Your task to perform on an android device: Empty the shopping cart on walmart. Add "alienware area 51" to the cart on walmart Image 0: 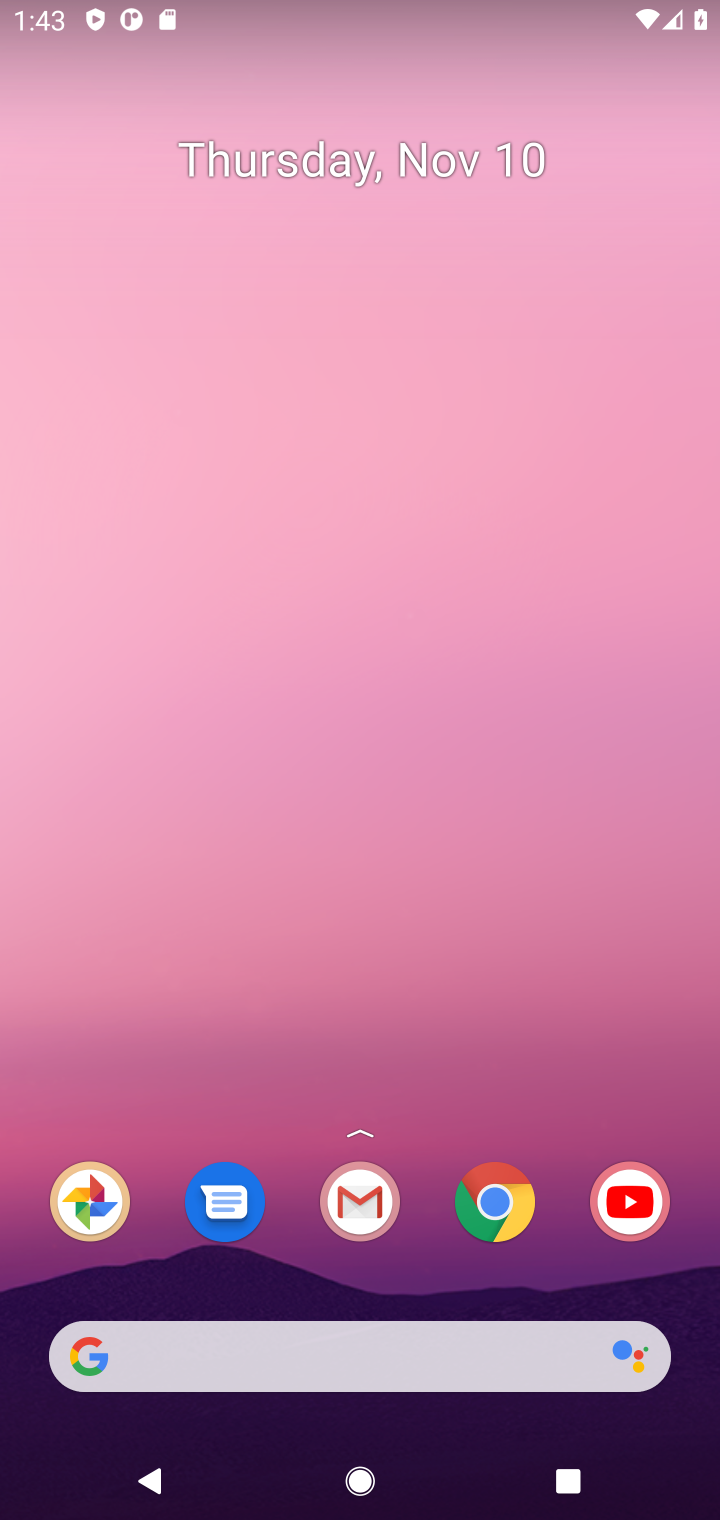
Step 0: click (510, 1208)
Your task to perform on an android device: Empty the shopping cart on walmart. Add "alienware area 51" to the cart on walmart Image 1: 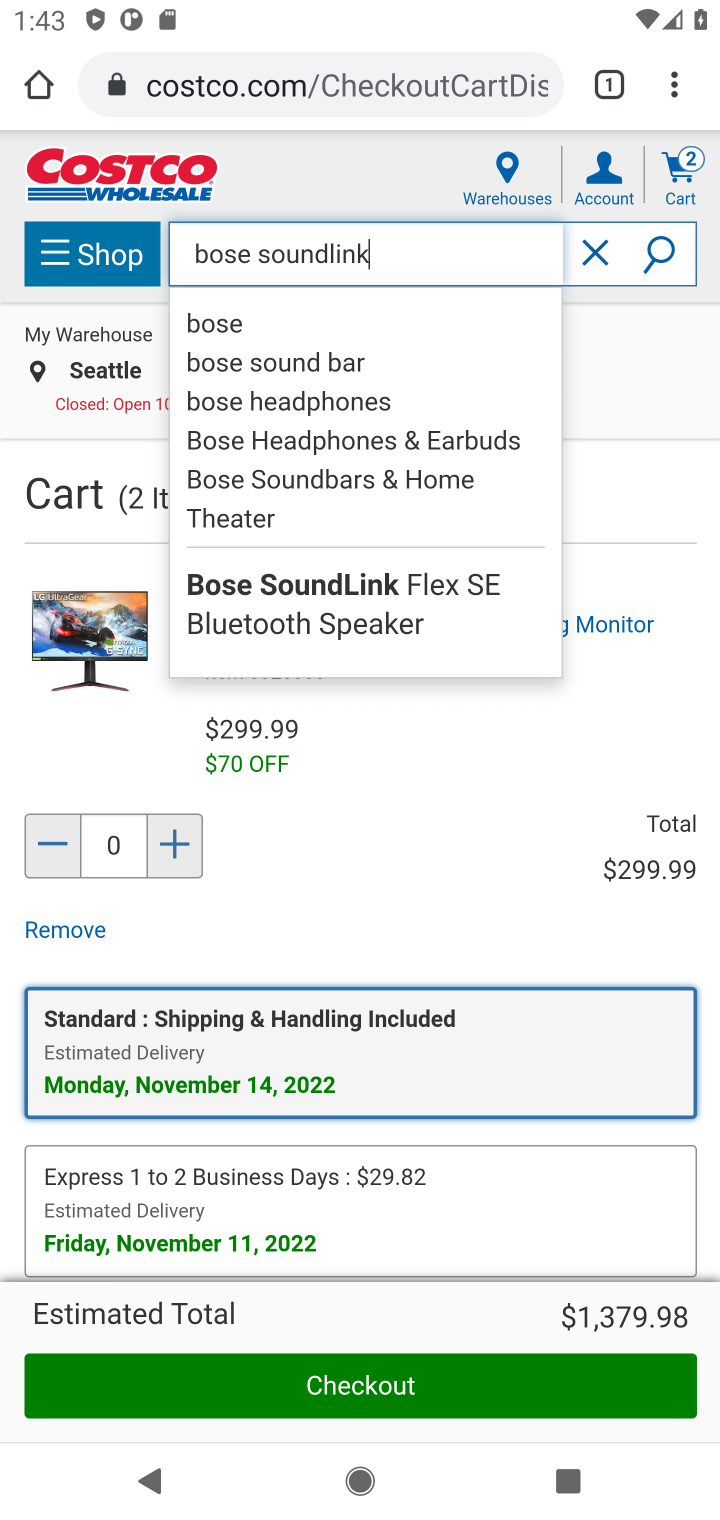
Step 1: click (31, 84)
Your task to perform on an android device: Empty the shopping cart on walmart. Add "alienware area 51" to the cart on walmart Image 2: 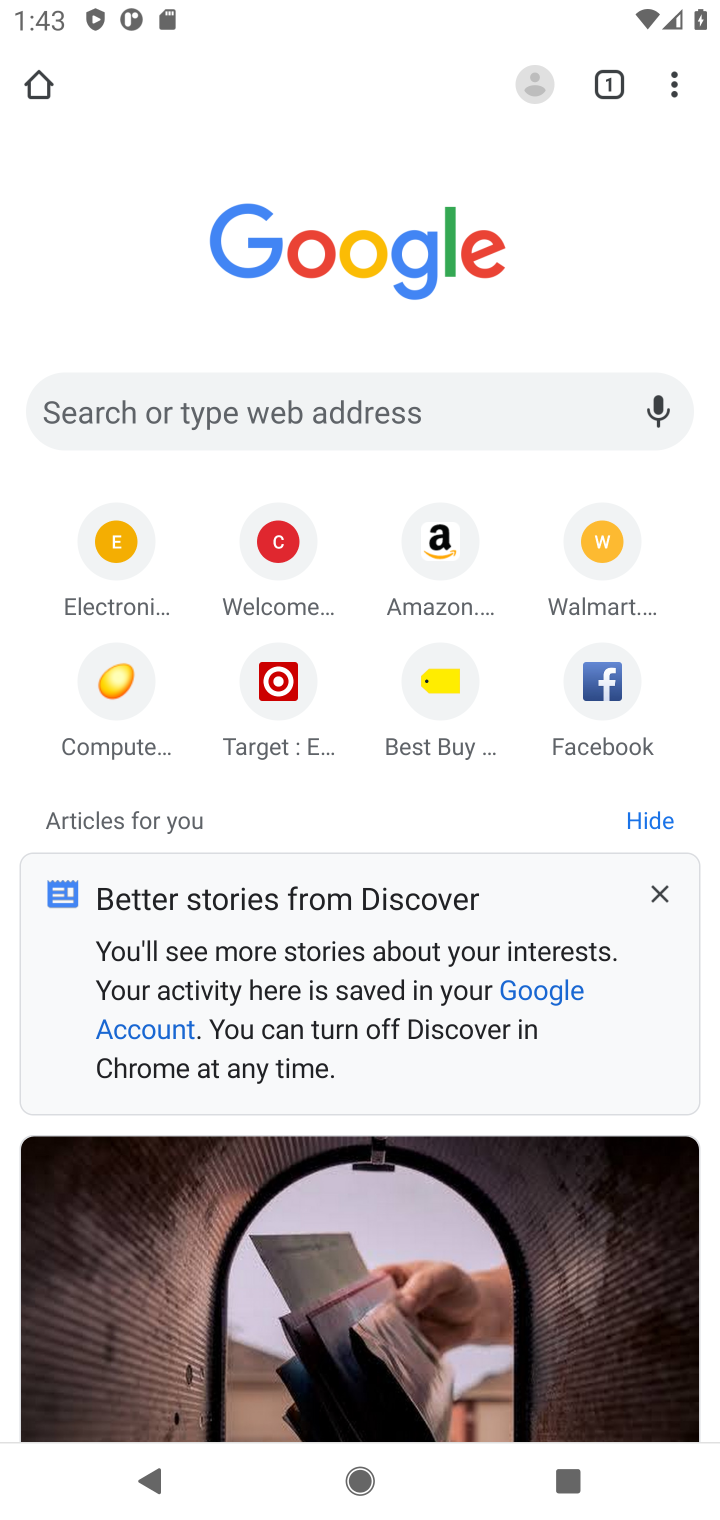
Step 2: click (250, 388)
Your task to perform on an android device: Empty the shopping cart on walmart. Add "alienware area 51" to the cart on walmart Image 3: 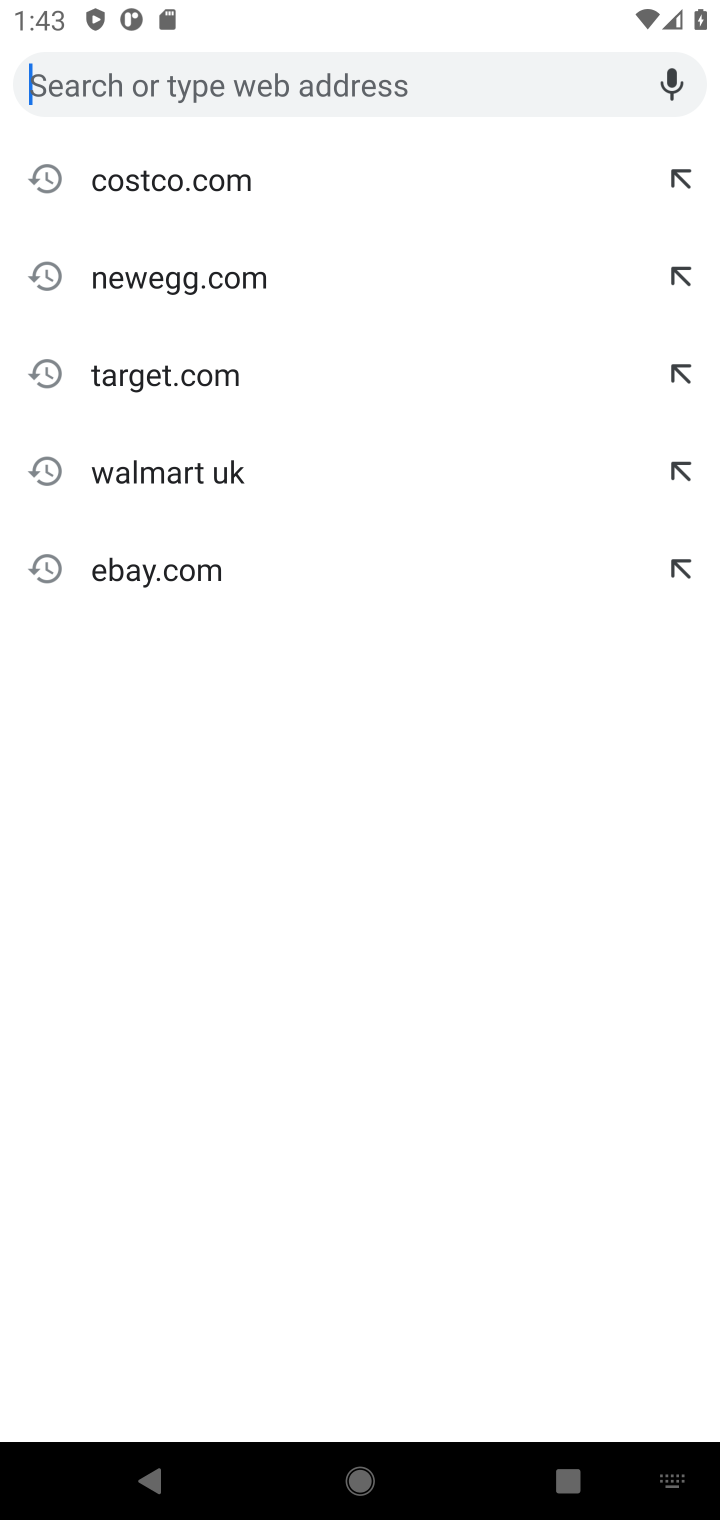
Step 3: click (202, 480)
Your task to perform on an android device: Empty the shopping cart on walmart. Add "alienware area 51" to the cart on walmart Image 4: 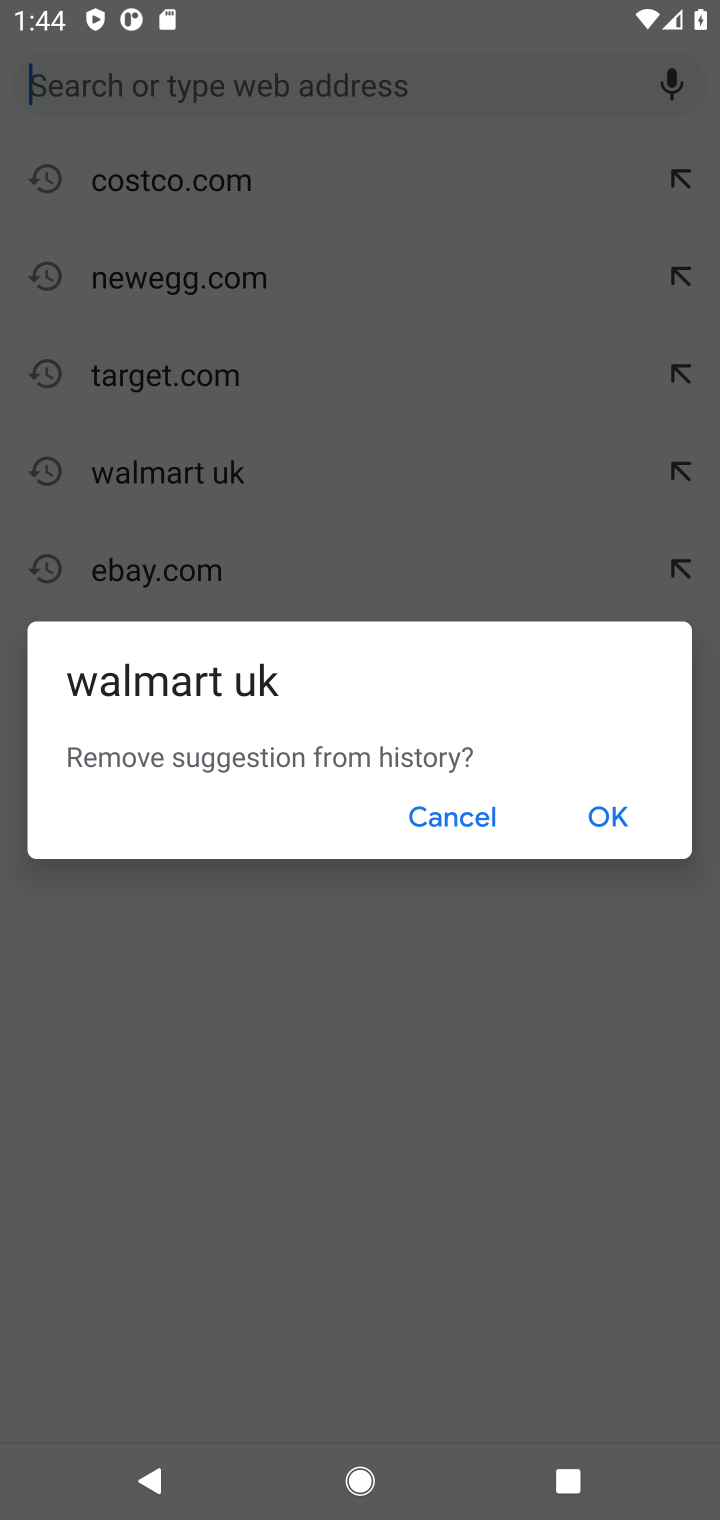
Step 4: click (605, 817)
Your task to perform on an android device: Empty the shopping cart on walmart. Add "alienware area 51" to the cart on walmart Image 5: 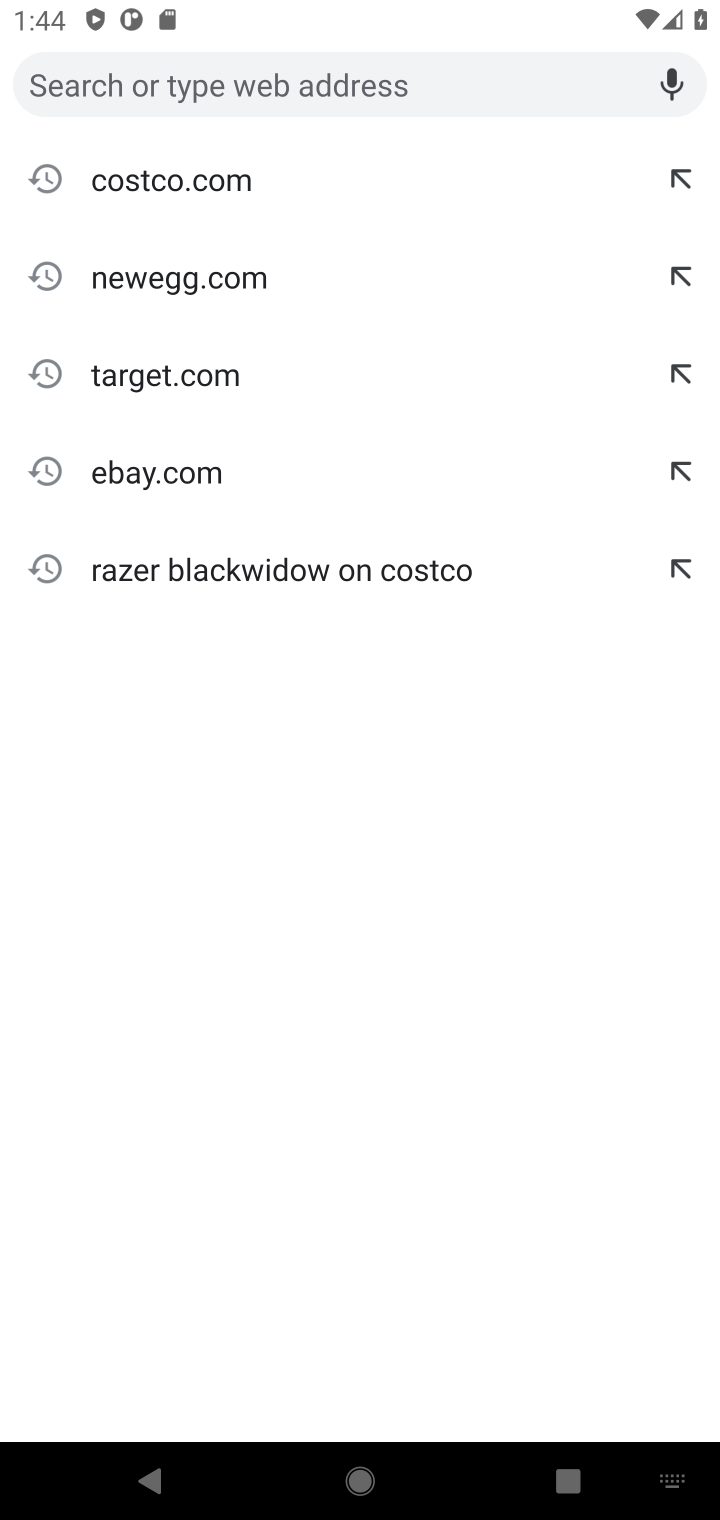
Step 5: type "walmart"
Your task to perform on an android device: Empty the shopping cart on walmart. Add "alienware area 51" to the cart on walmart Image 6: 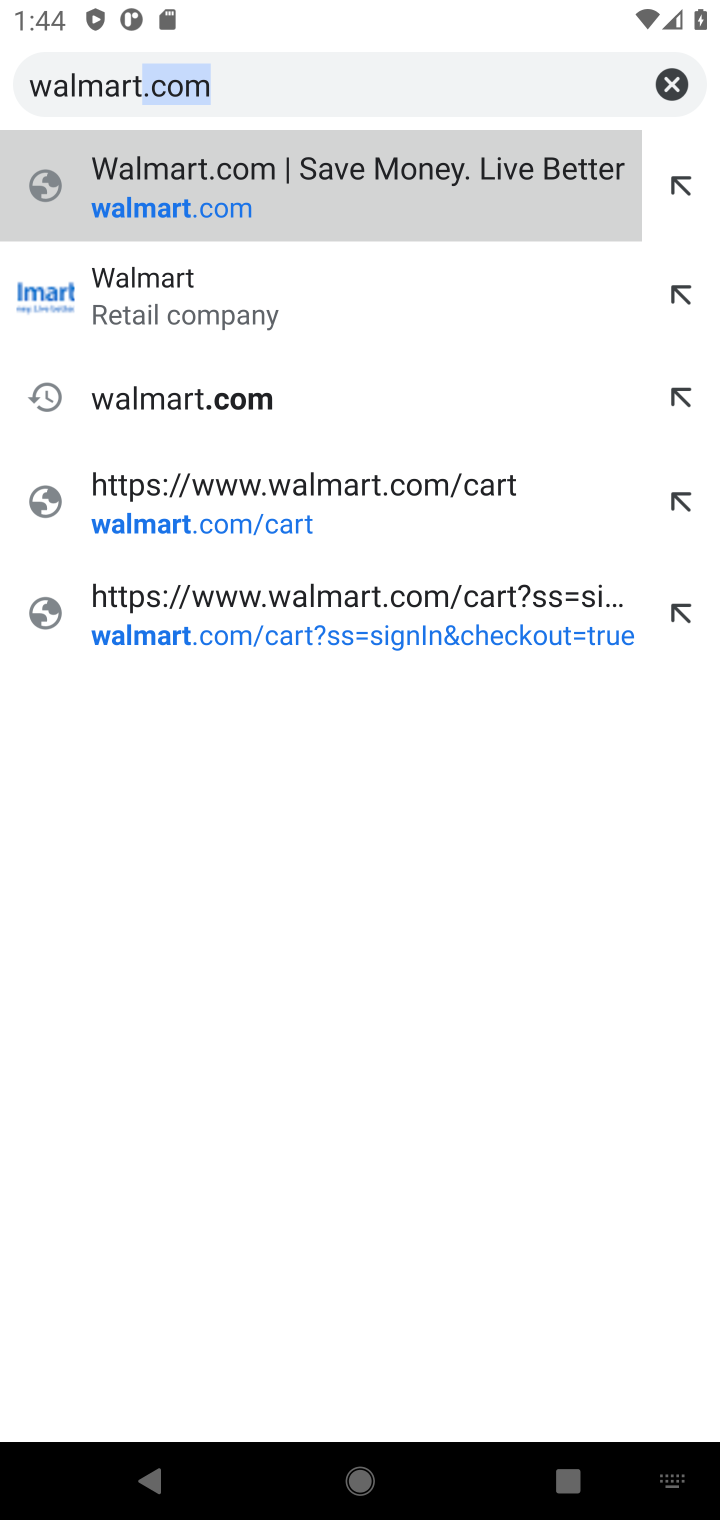
Step 6: click (540, 89)
Your task to perform on an android device: Empty the shopping cart on walmart. Add "alienware area 51" to the cart on walmart Image 7: 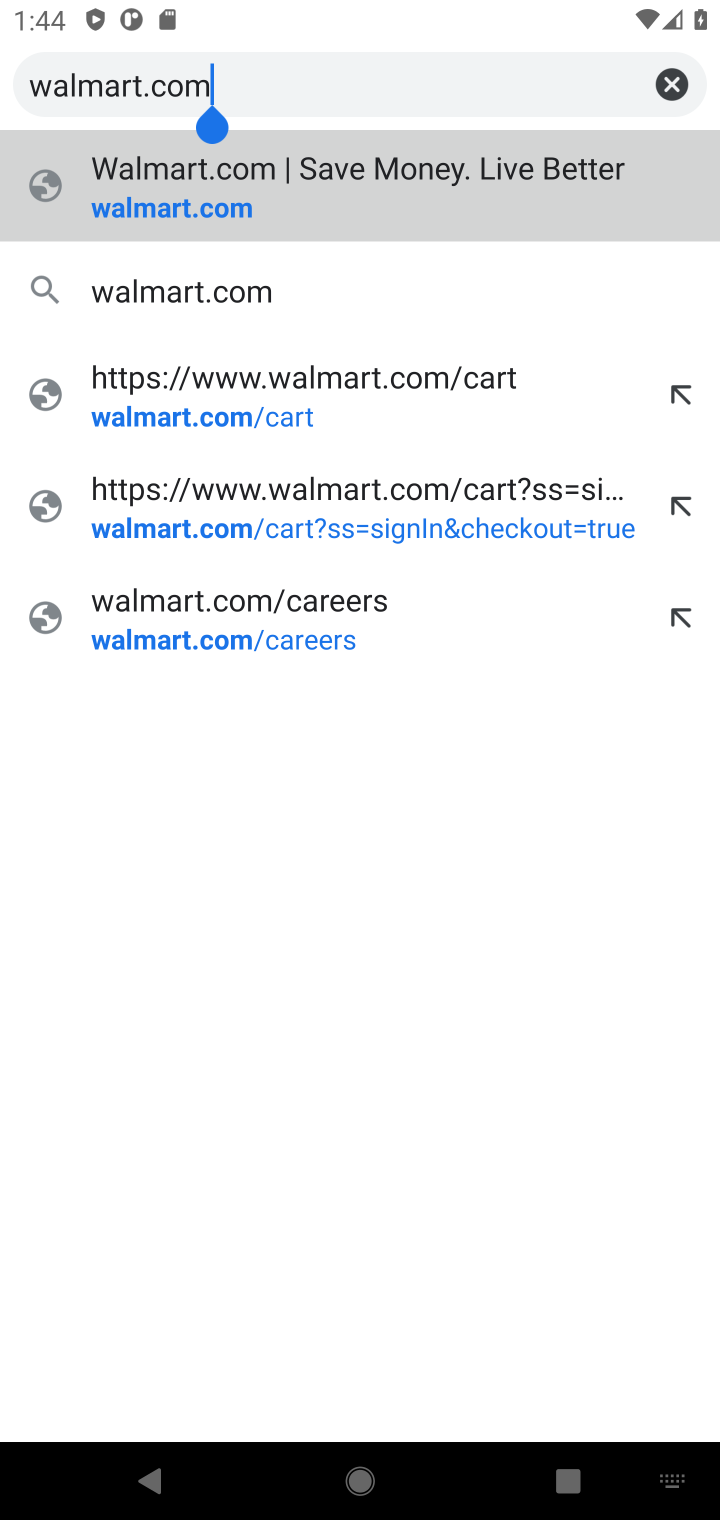
Step 7: click (247, 292)
Your task to perform on an android device: Empty the shopping cart on walmart. Add "alienware area 51" to the cart on walmart Image 8: 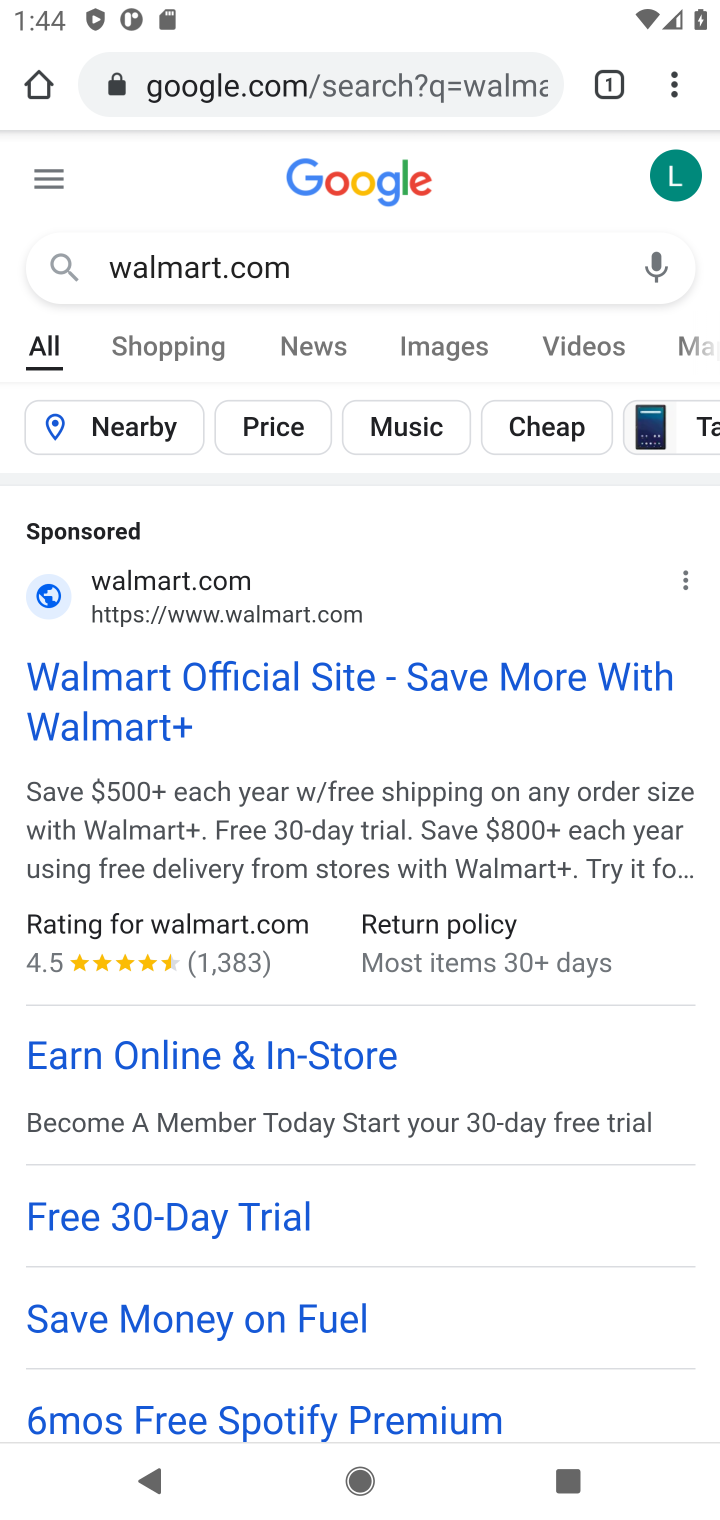
Step 8: click (287, 622)
Your task to perform on an android device: Empty the shopping cart on walmart. Add "alienware area 51" to the cart on walmart Image 9: 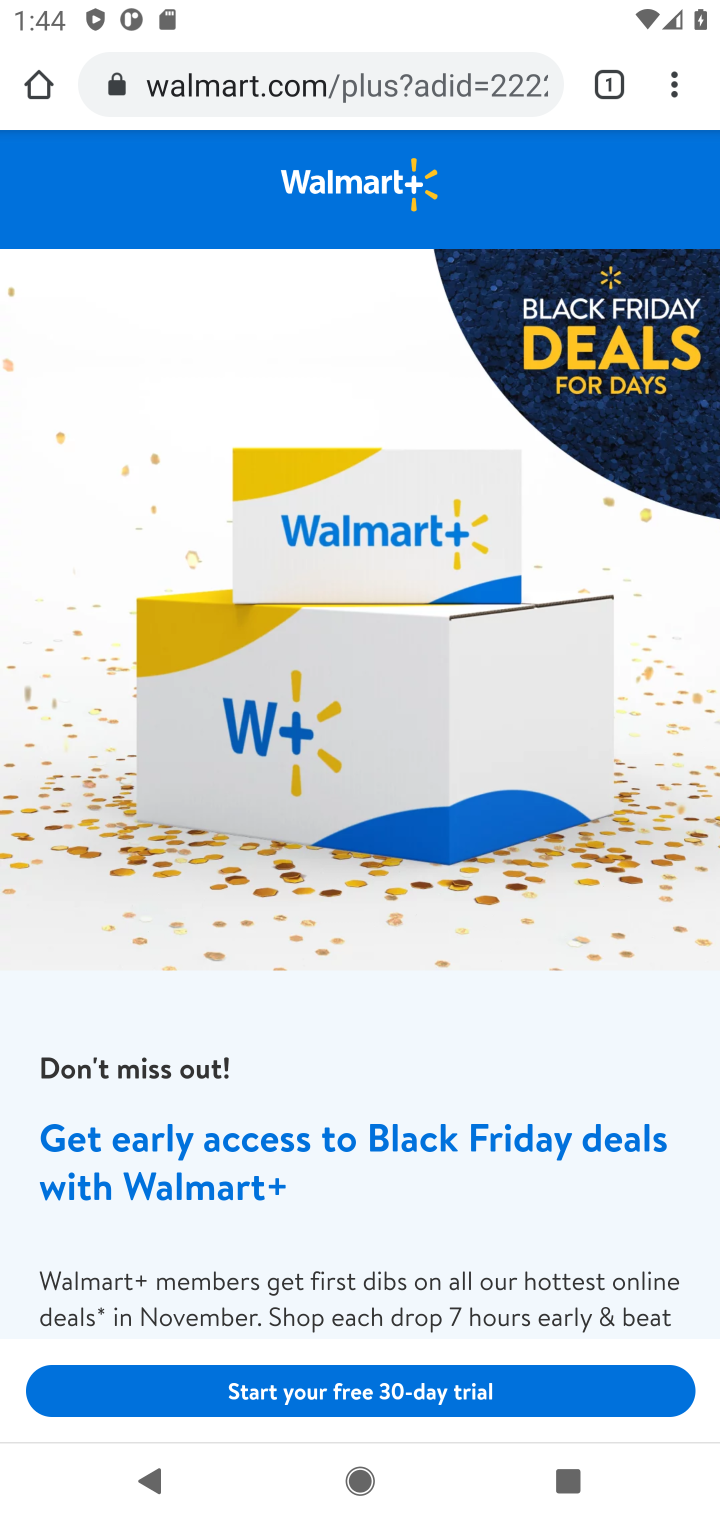
Step 9: press back button
Your task to perform on an android device: Empty the shopping cart on walmart. Add "alienware area 51" to the cart on walmart Image 10: 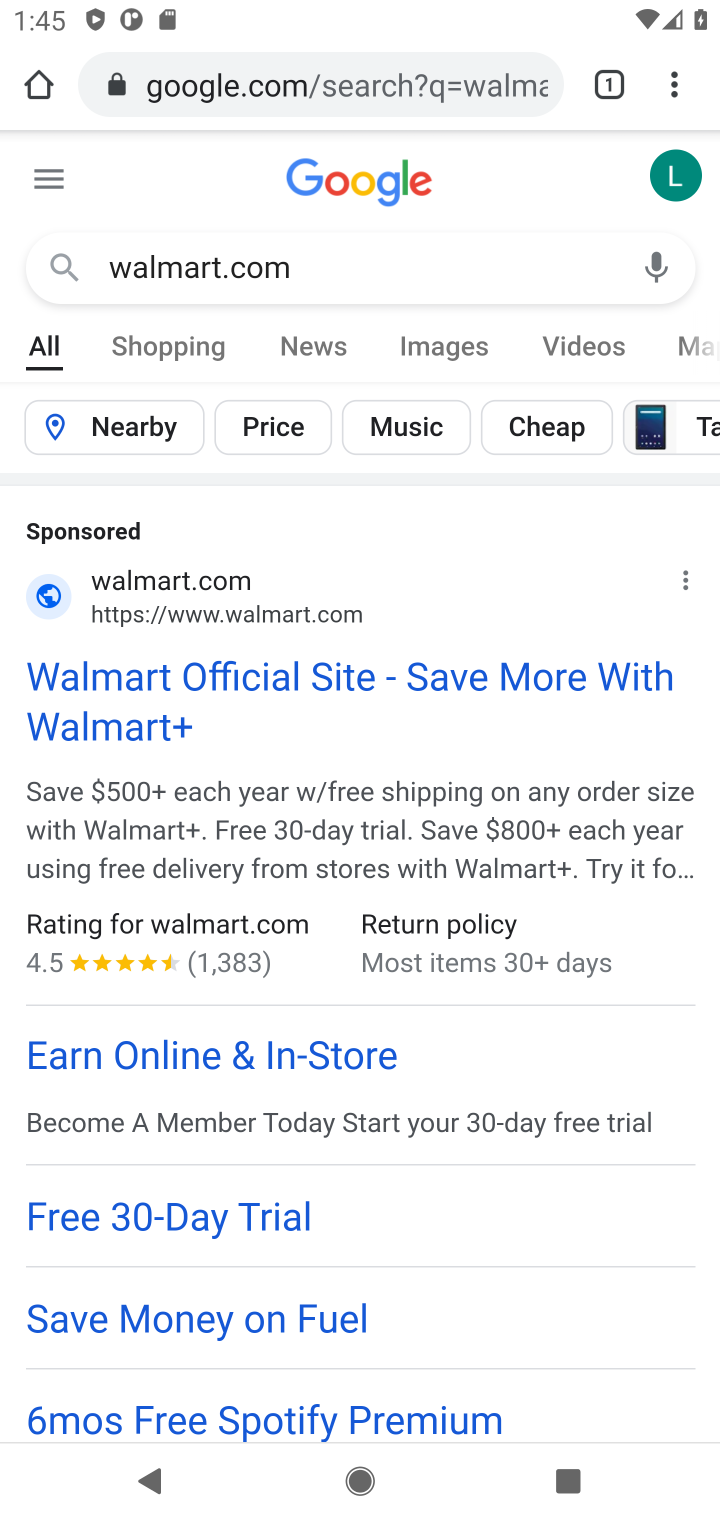
Step 10: drag from (306, 1198) to (349, 525)
Your task to perform on an android device: Empty the shopping cart on walmart. Add "alienware area 51" to the cart on walmart Image 11: 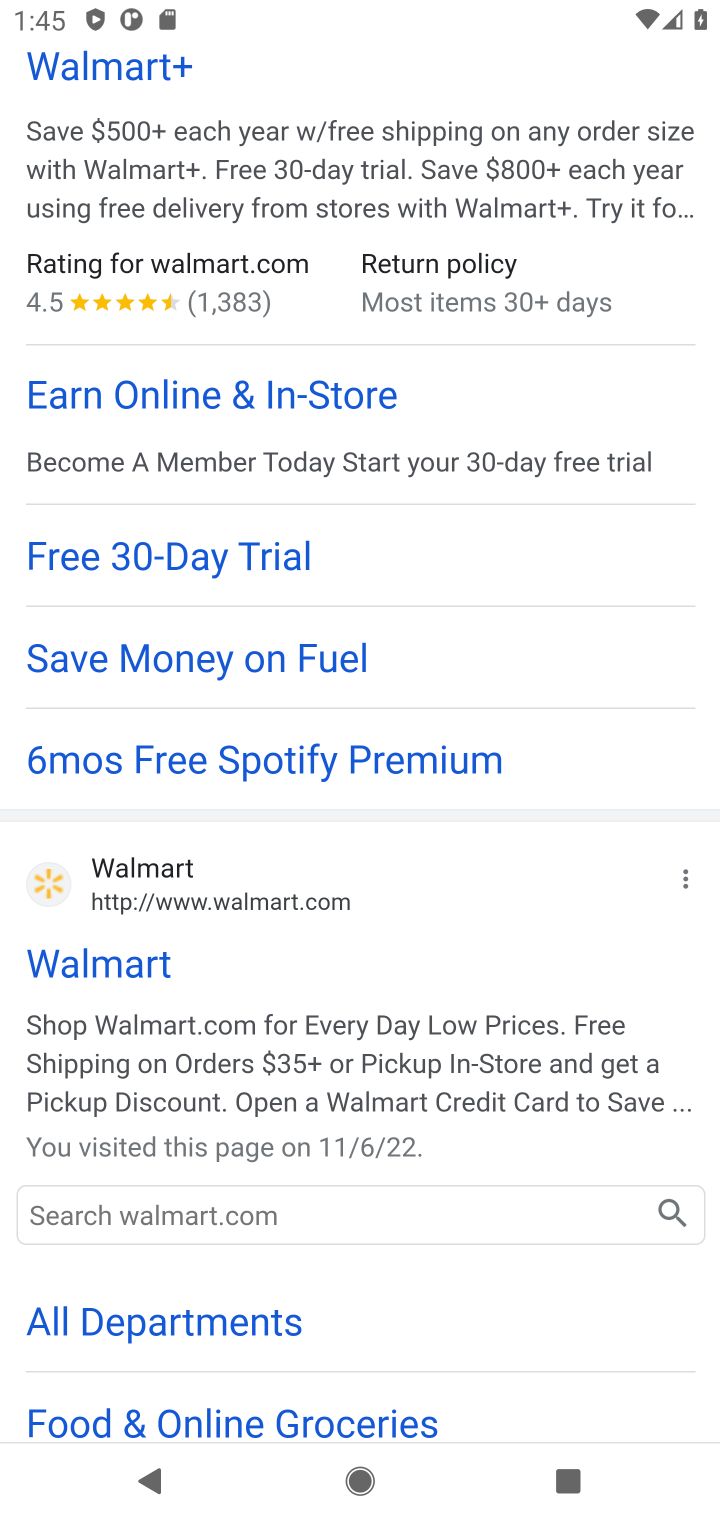
Step 11: click (249, 900)
Your task to perform on an android device: Empty the shopping cart on walmart. Add "alienware area 51" to the cart on walmart Image 12: 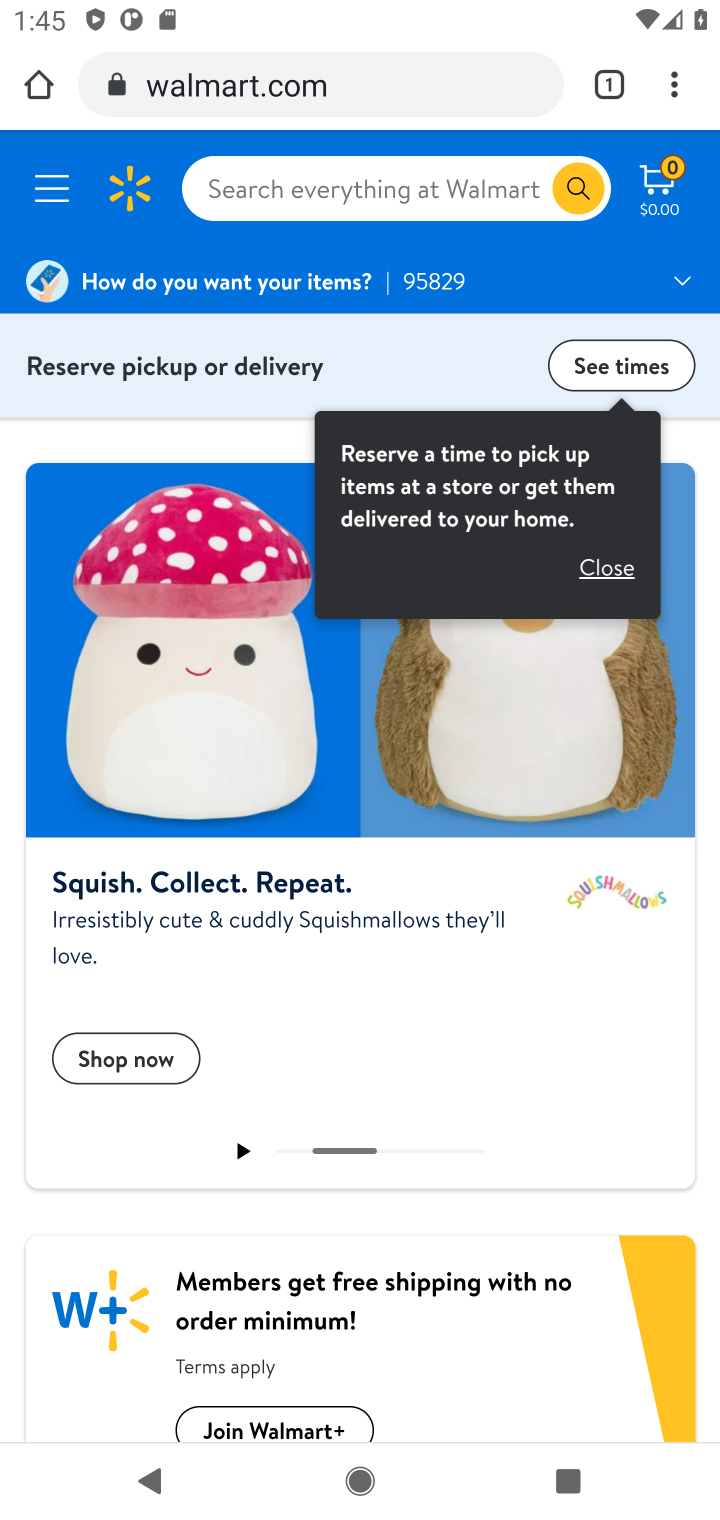
Step 12: click (422, 179)
Your task to perform on an android device: Empty the shopping cart on walmart. Add "alienware area 51" to the cart on walmart Image 13: 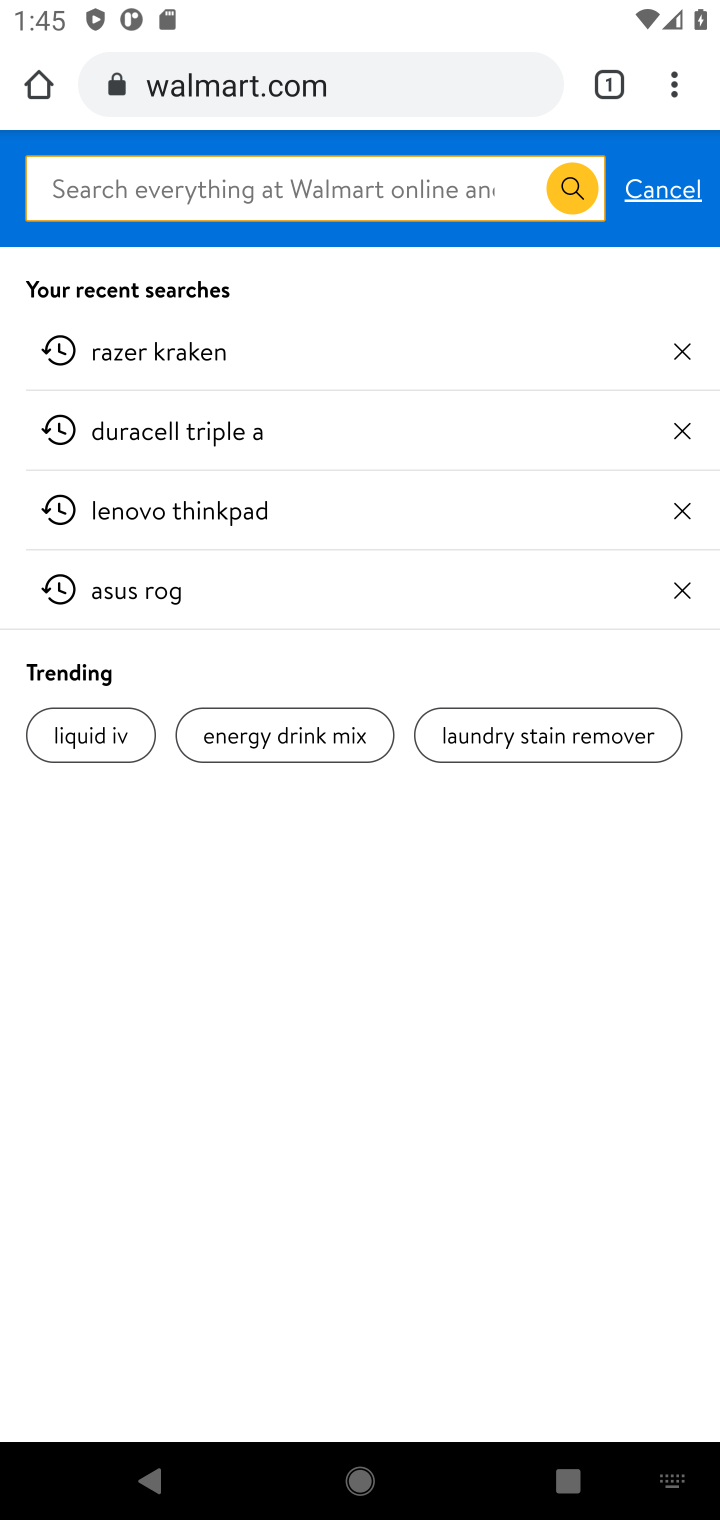
Step 13: type "alienware area 51"
Your task to perform on an android device: Empty the shopping cart on walmart. Add "alienware area 51" to the cart on walmart Image 14: 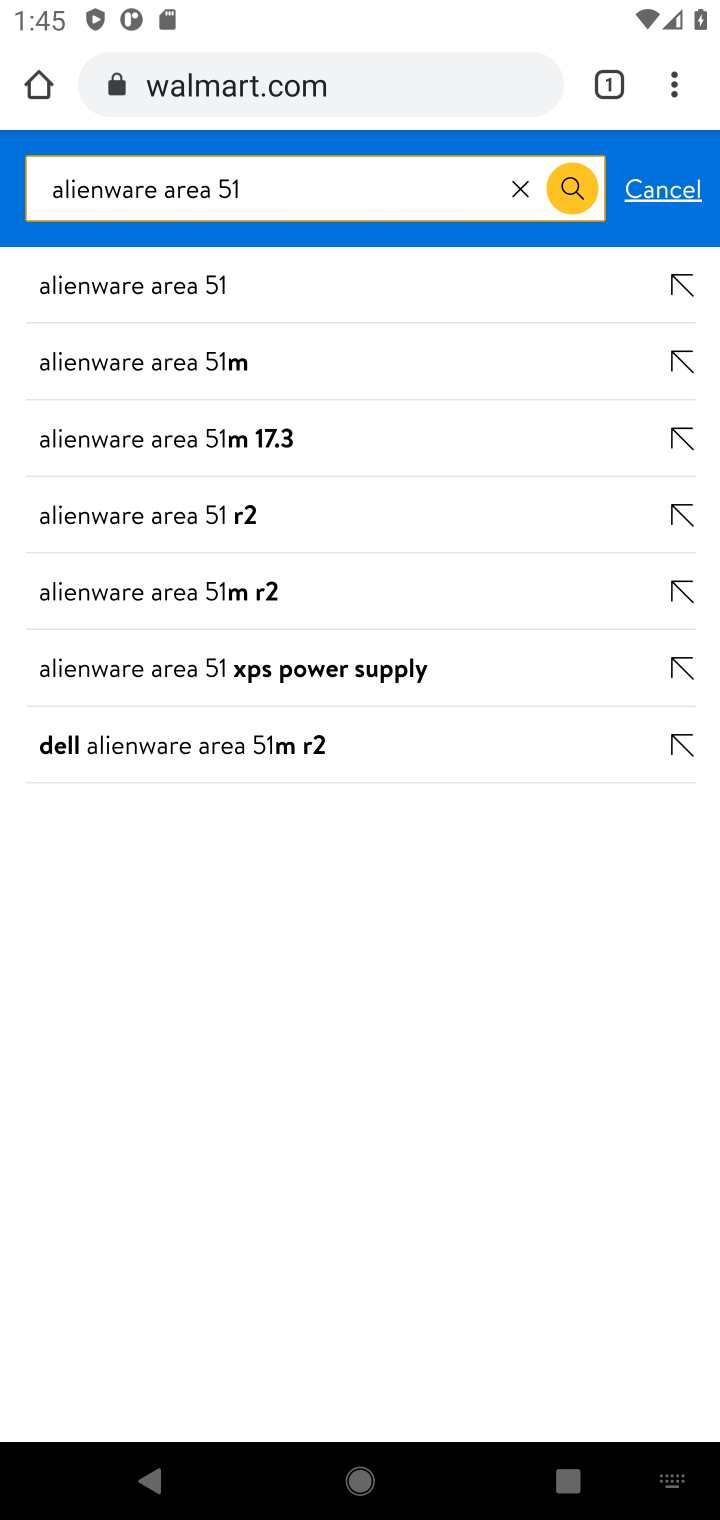
Step 14: click (184, 277)
Your task to perform on an android device: Empty the shopping cart on walmart. Add "alienware area 51" to the cart on walmart Image 15: 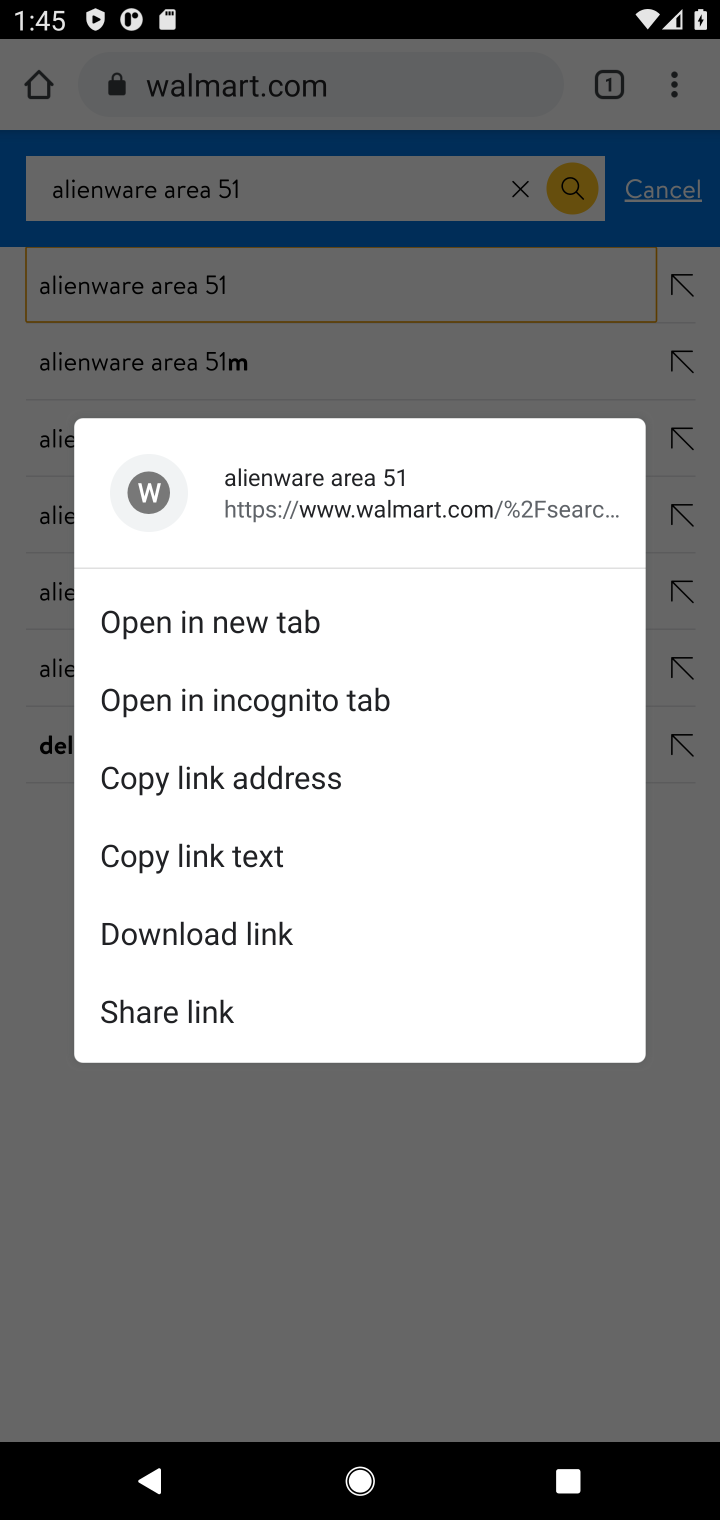
Step 15: click (548, 307)
Your task to perform on an android device: Empty the shopping cart on walmart. Add "alienware area 51" to the cart on walmart Image 16: 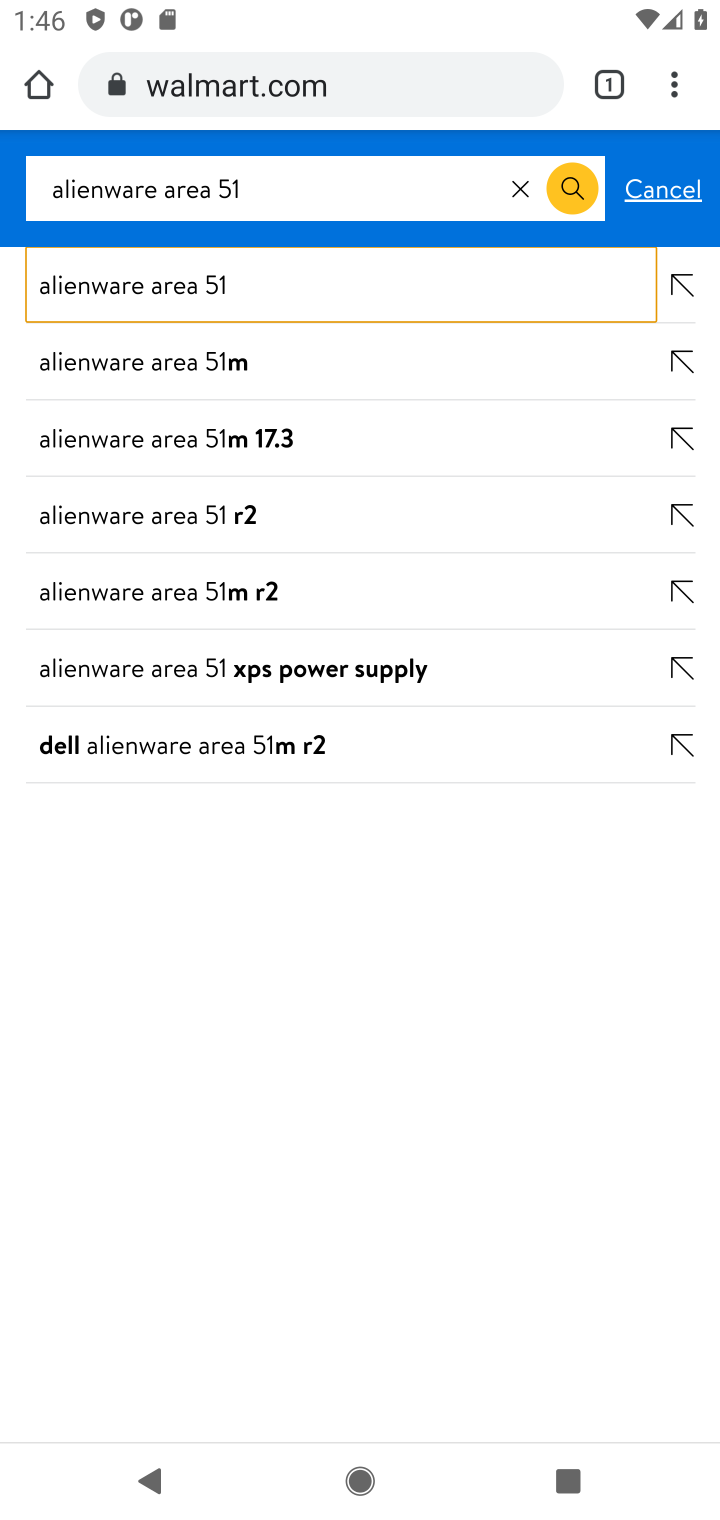
Step 16: click (327, 282)
Your task to perform on an android device: Empty the shopping cart on walmart. Add "alienware area 51" to the cart on walmart Image 17: 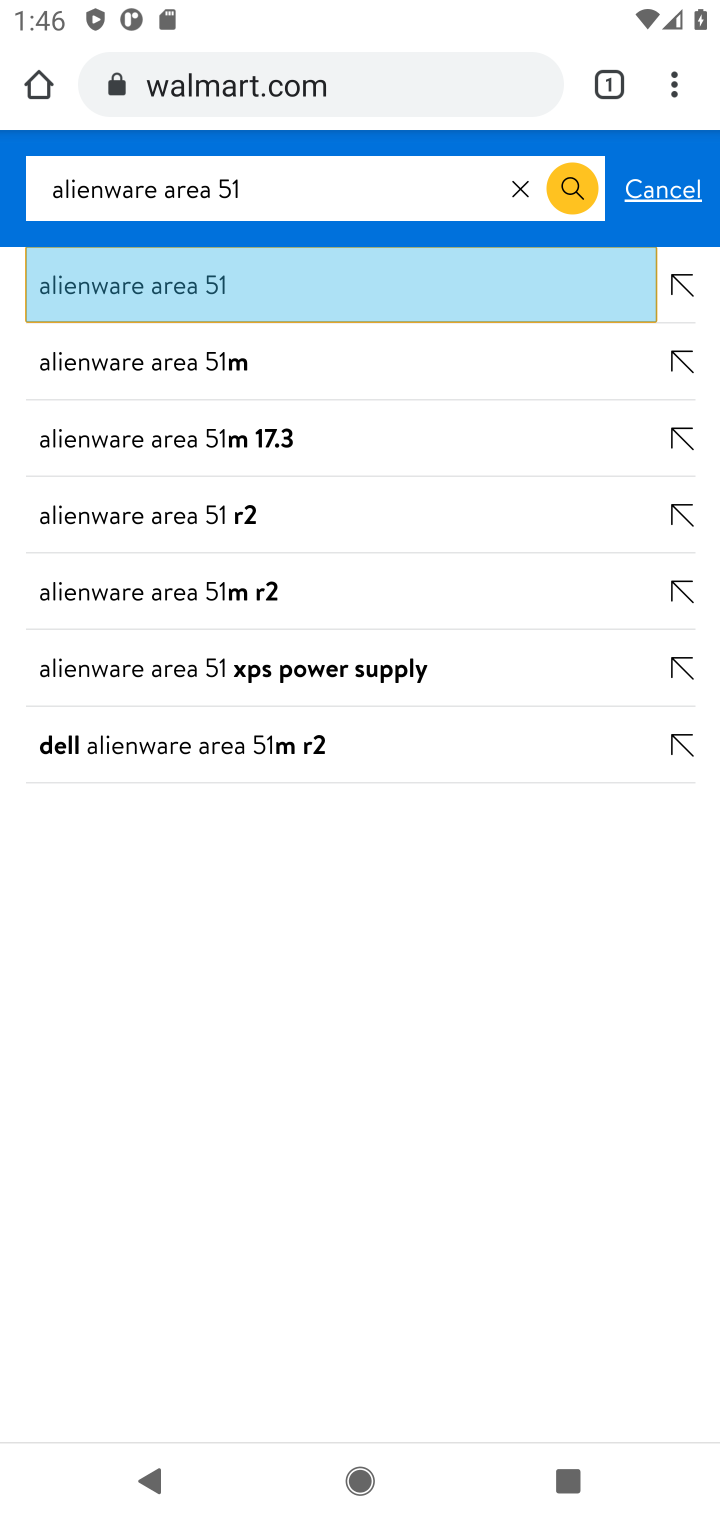
Step 17: click (374, 187)
Your task to perform on an android device: Empty the shopping cart on walmart. Add "alienware area 51" to the cart on walmart Image 18: 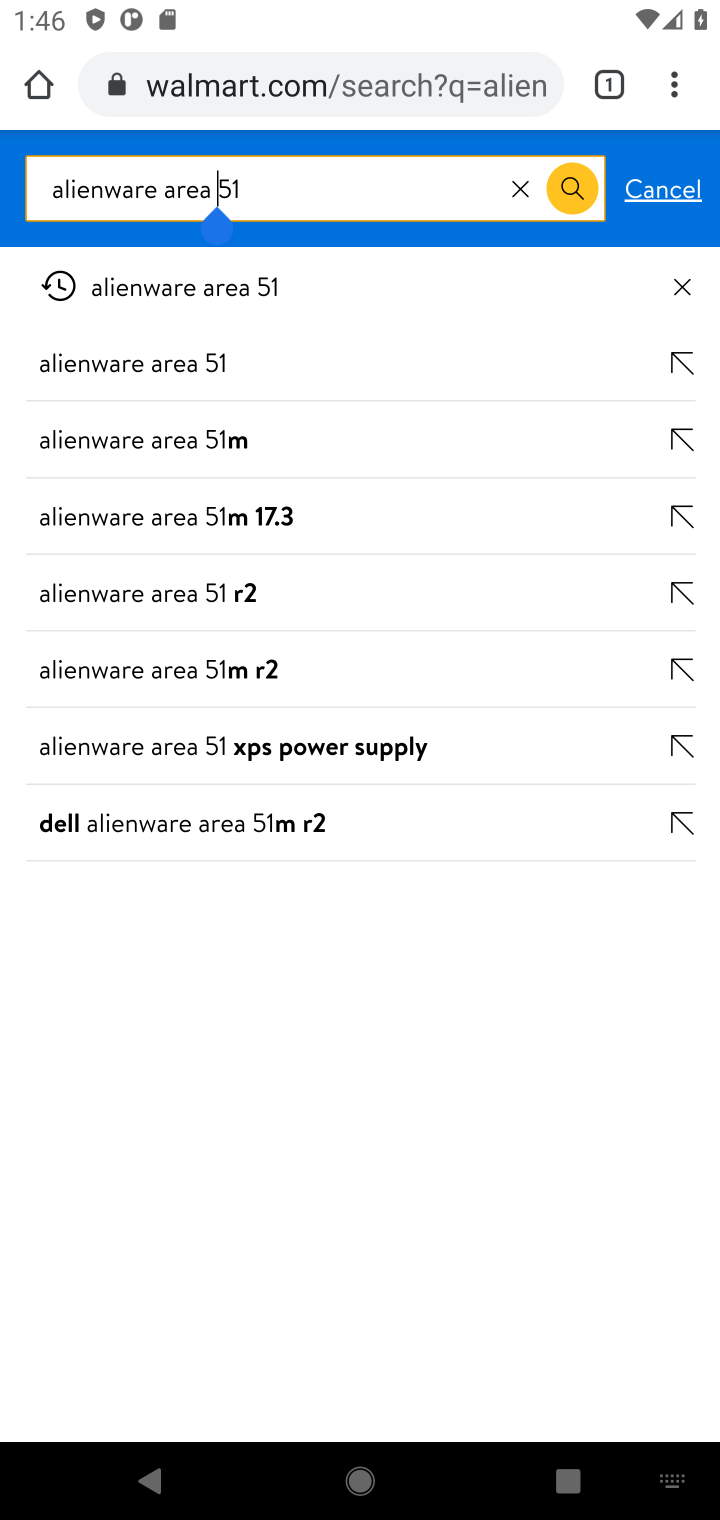
Step 18: click (198, 369)
Your task to perform on an android device: Empty the shopping cart on walmart. Add "alienware area 51" to the cart on walmart Image 19: 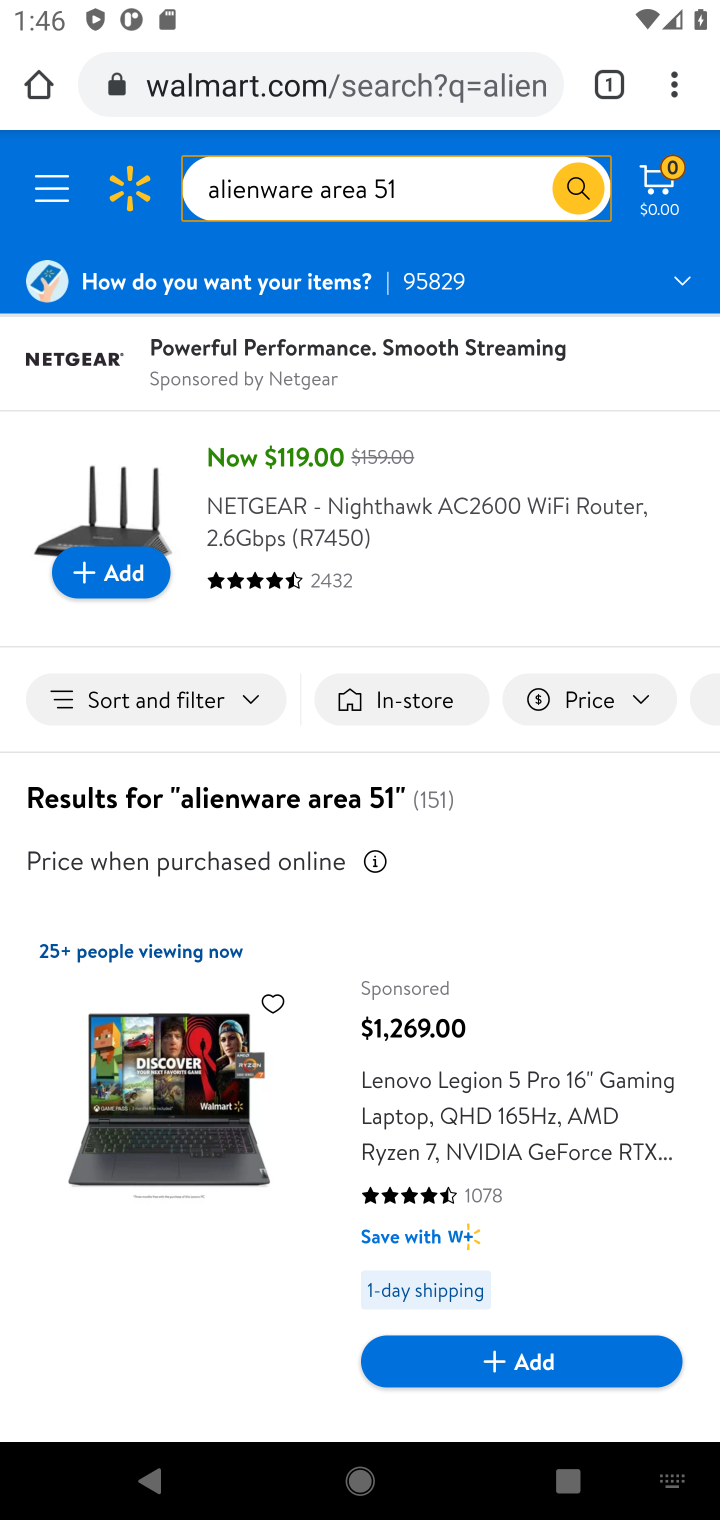
Step 19: drag from (555, 1094) to (532, 436)
Your task to perform on an android device: Empty the shopping cart on walmart. Add "alienware area 51" to the cart on walmart Image 20: 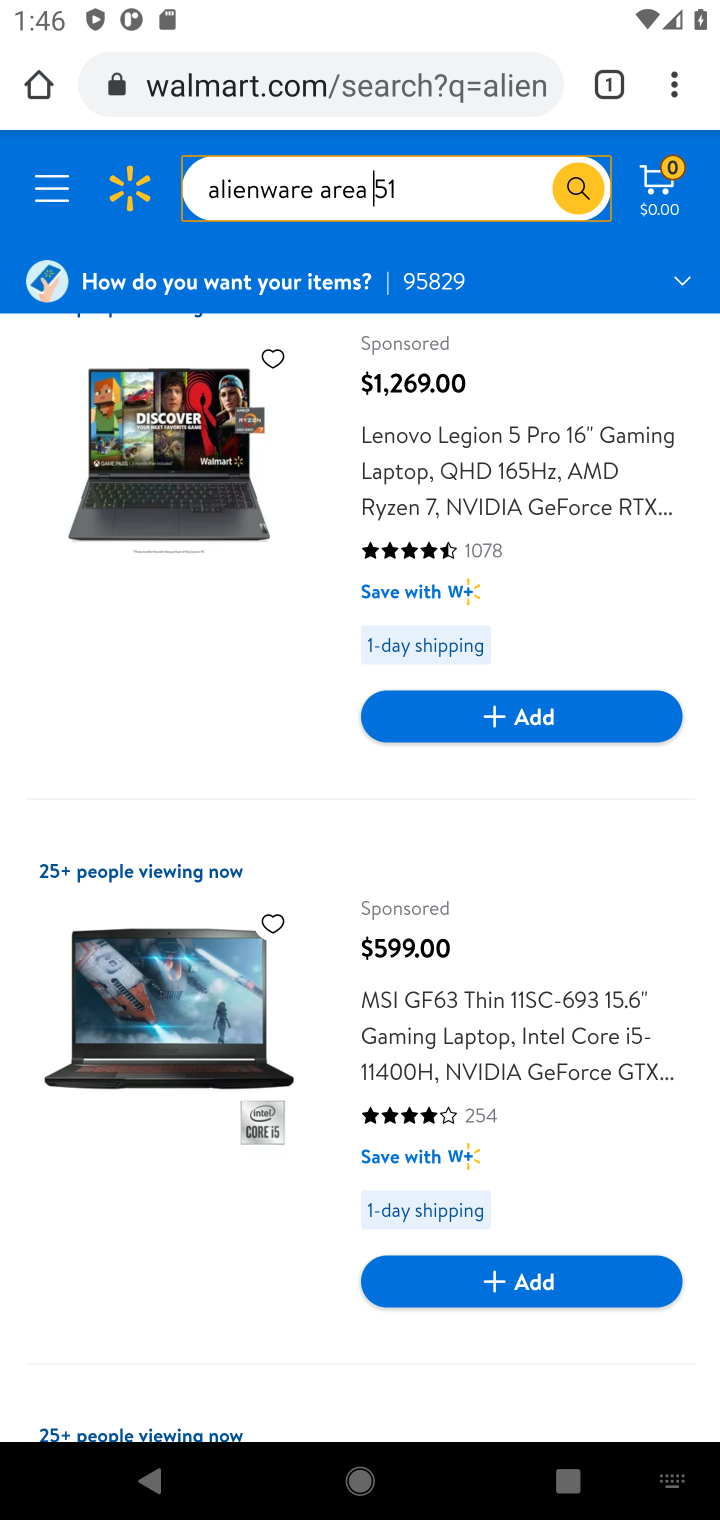
Step 20: drag from (588, 1001) to (608, 414)
Your task to perform on an android device: Empty the shopping cart on walmart. Add "alienware area 51" to the cart on walmart Image 21: 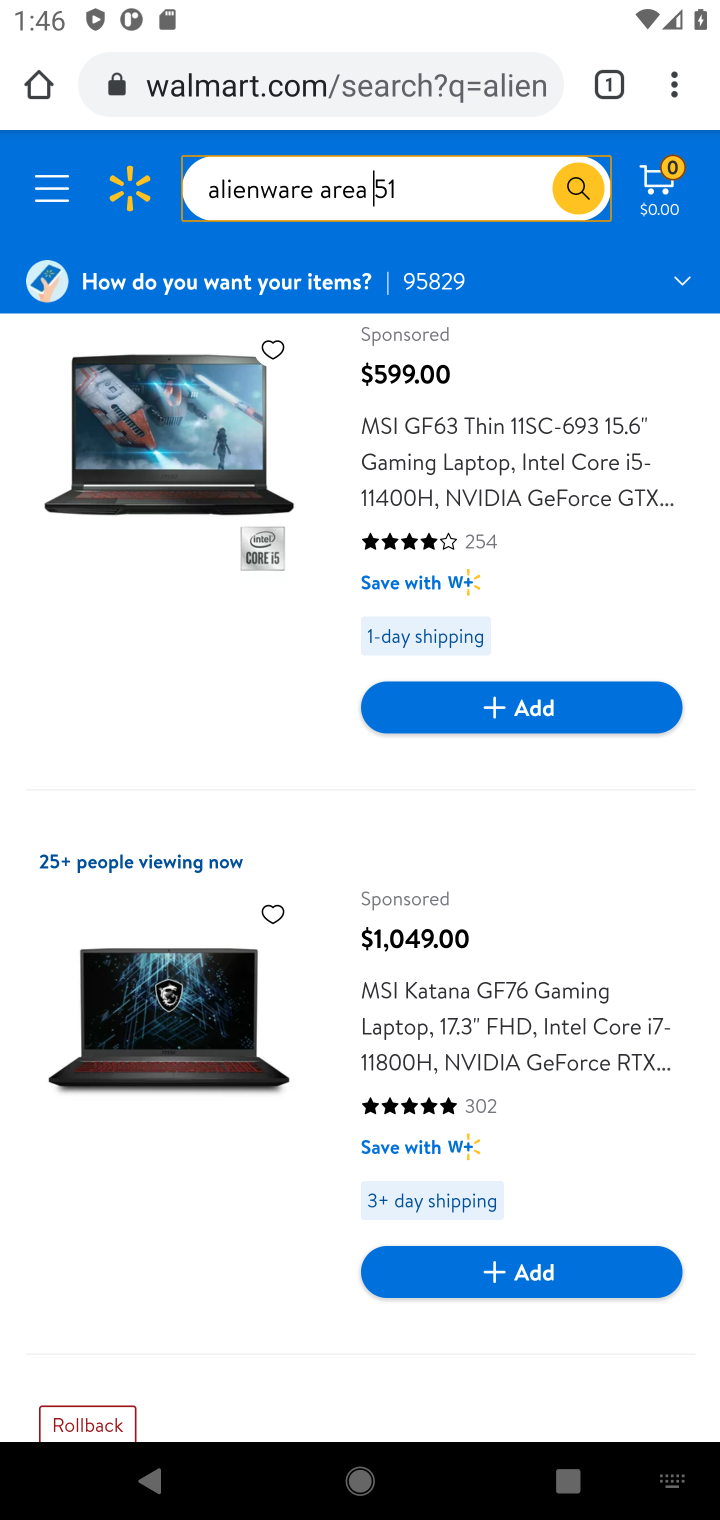
Step 21: drag from (534, 1105) to (587, 641)
Your task to perform on an android device: Empty the shopping cart on walmart. Add "alienware area 51" to the cart on walmart Image 22: 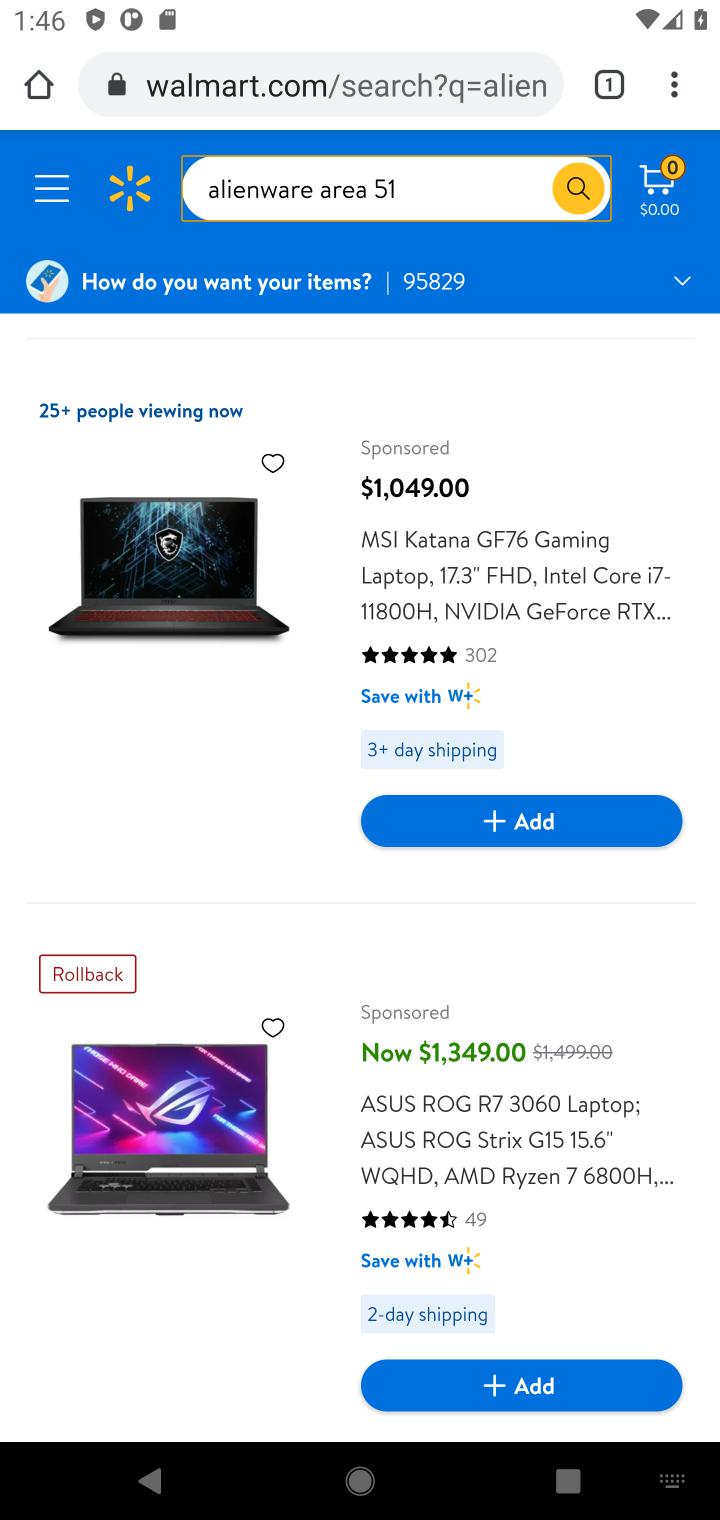
Step 22: drag from (538, 1088) to (530, 556)
Your task to perform on an android device: Empty the shopping cart on walmart. Add "alienware area 51" to the cart on walmart Image 23: 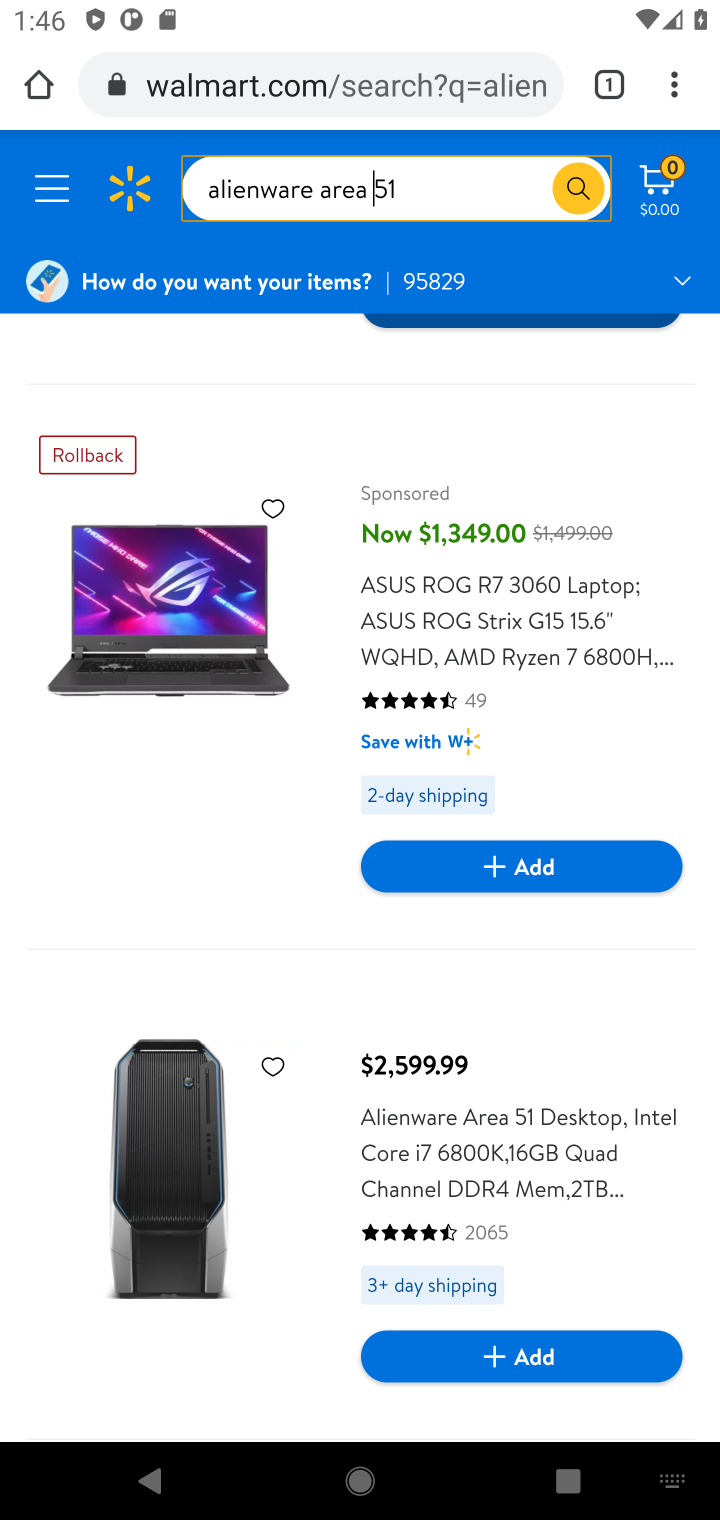
Step 23: click (192, 1160)
Your task to perform on an android device: Empty the shopping cart on walmart. Add "alienware area 51" to the cart on walmart Image 24: 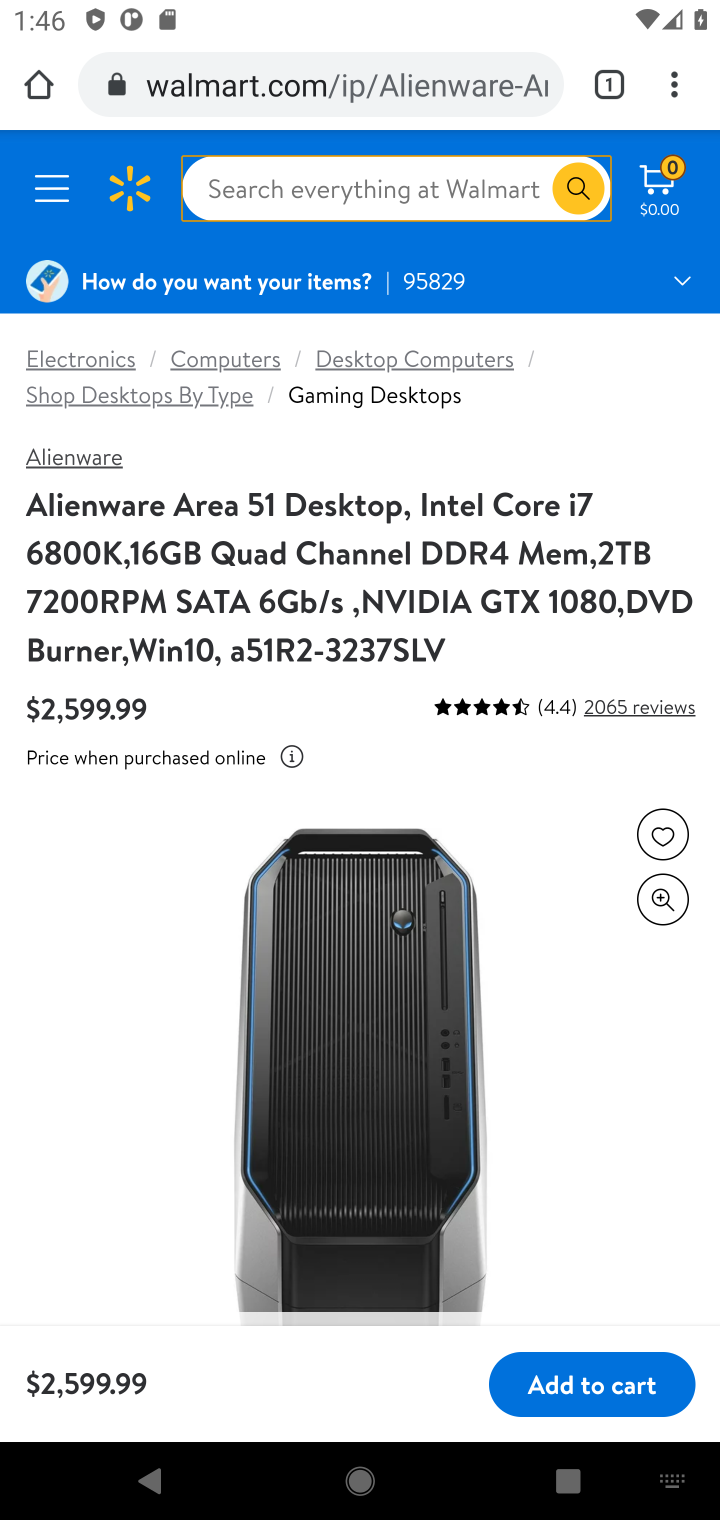
Step 24: drag from (516, 674) to (534, 497)
Your task to perform on an android device: Empty the shopping cart on walmart. Add "alienware area 51" to the cart on walmart Image 25: 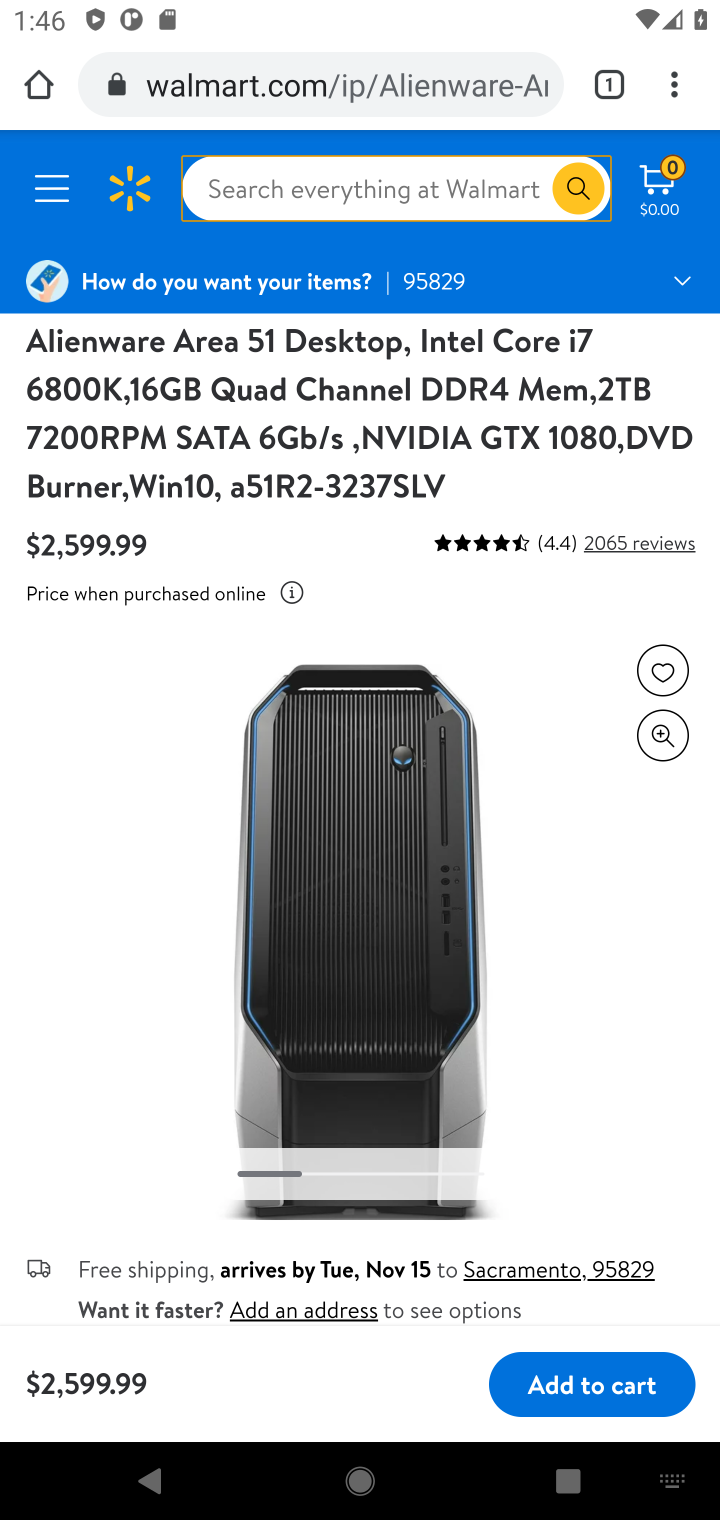
Step 25: click (577, 1377)
Your task to perform on an android device: Empty the shopping cart on walmart. Add "alienware area 51" to the cart on walmart Image 26: 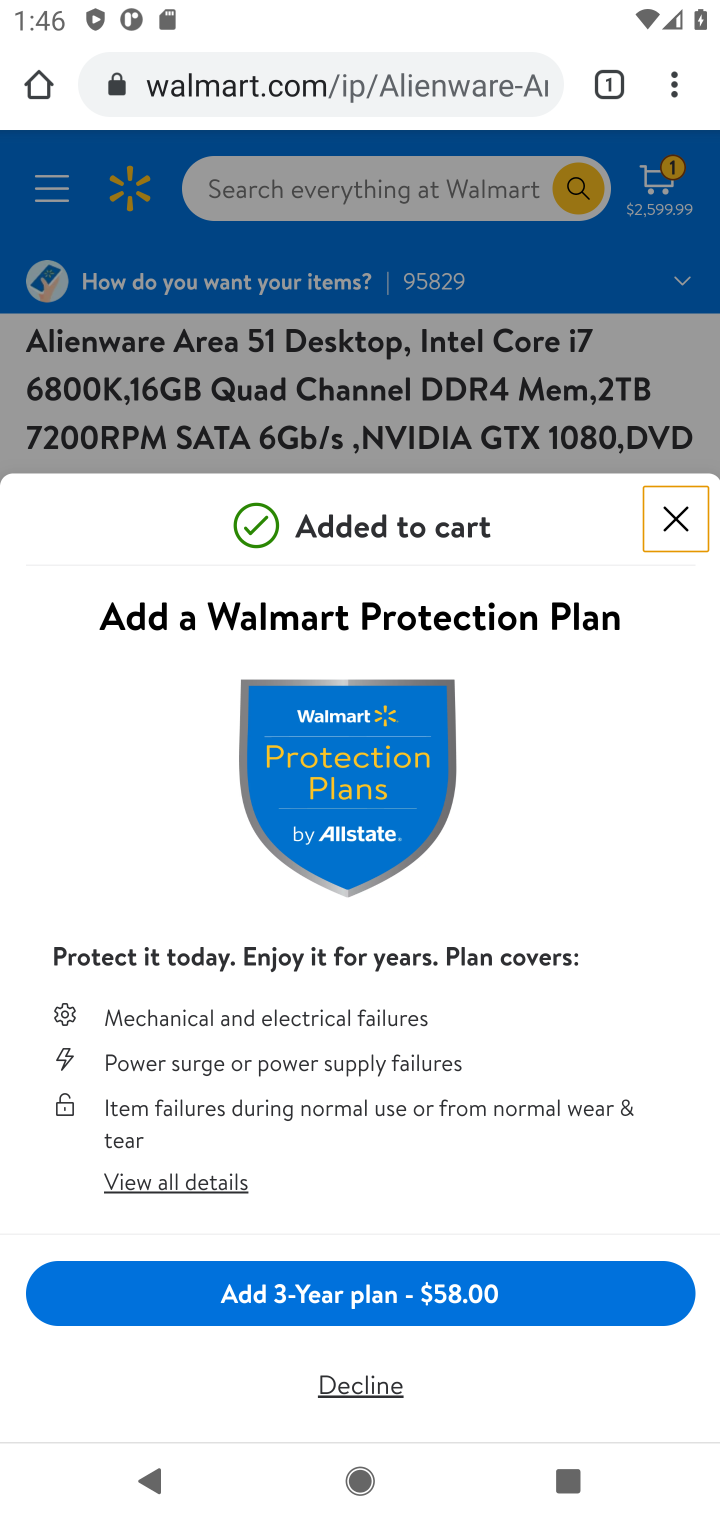
Step 26: task complete